Your task to perform on an android device: change the clock display to analog Image 0: 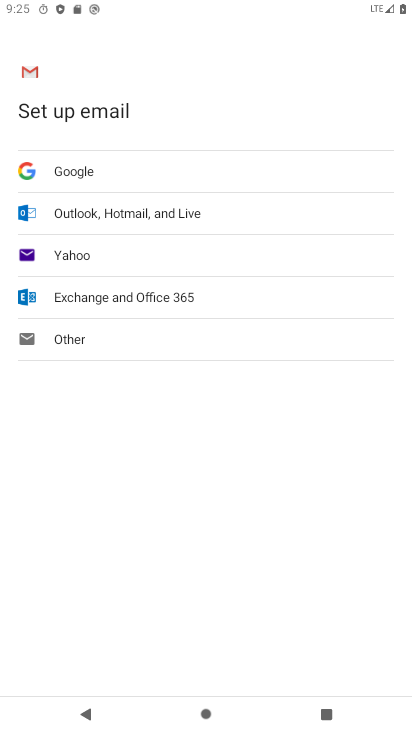
Step 0: press home button
Your task to perform on an android device: change the clock display to analog Image 1: 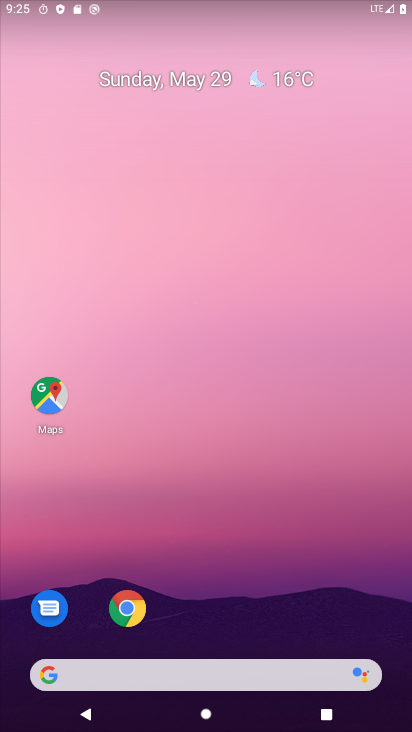
Step 1: drag from (194, 616) to (248, 5)
Your task to perform on an android device: change the clock display to analog Image 2: 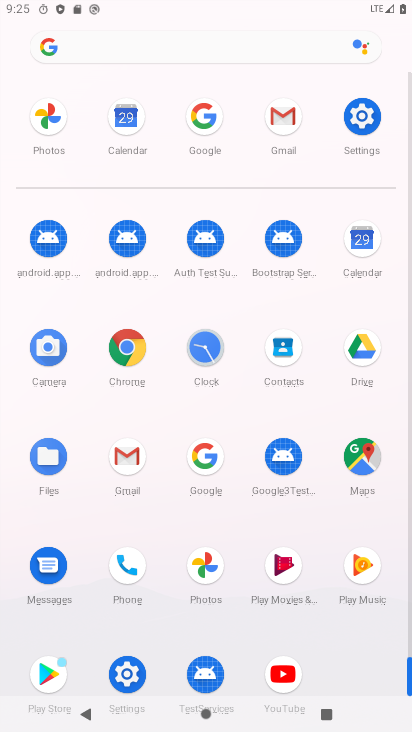
Step 2: click (213, 365)
Your task to perform on an android device: change the clock display to analog Image 3: 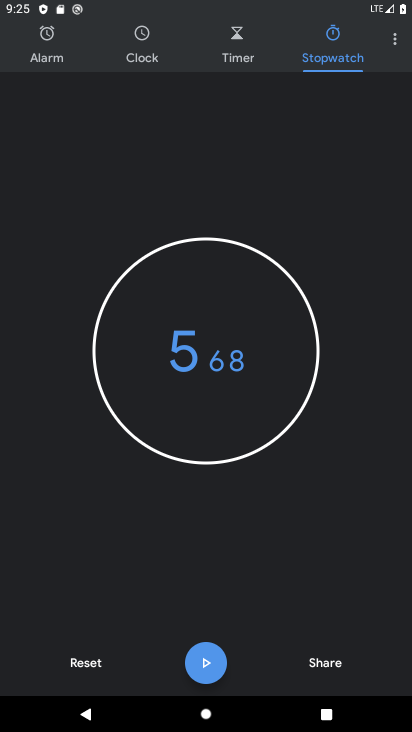
Step 3: click (397, 42)
Your task to perform on an android device: change the clock display to analog Image 4: 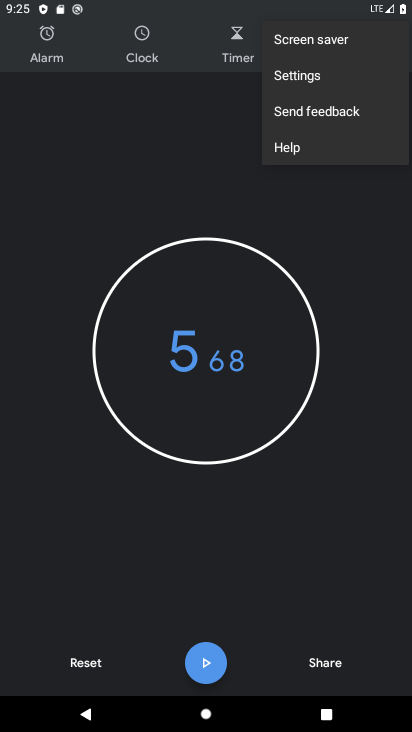
Step 4: click (345, 86)
Your task to perform on an android device: change the clock display to analog Image 5: 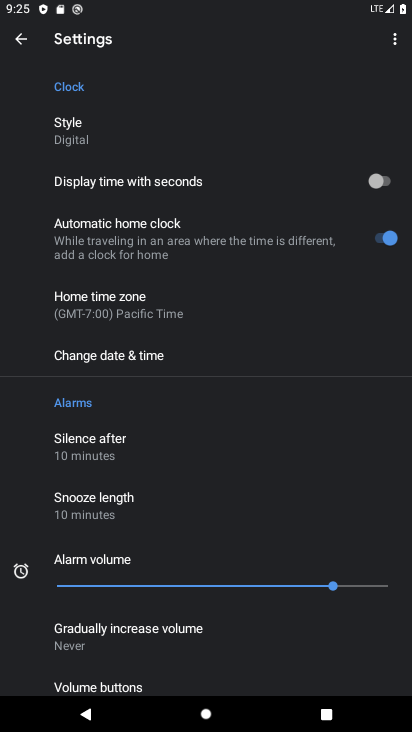
Step 5: click (76, 135)
Your task to perform on an android device: change the clock display to analog Image 6: 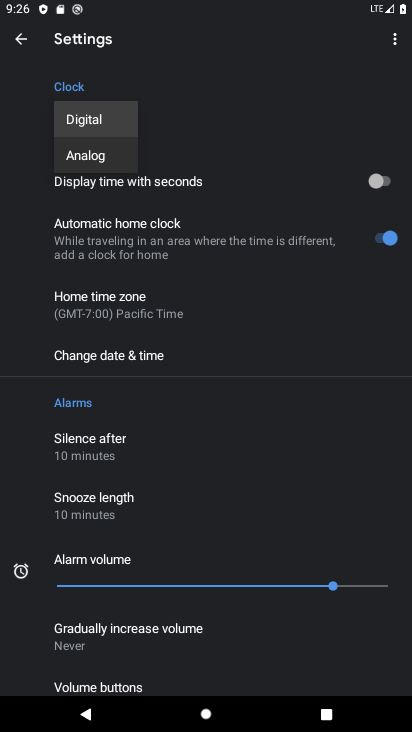
Step 6: click (97, 162)
Your task to perform on an android device: change the clock display to analog Image 7: 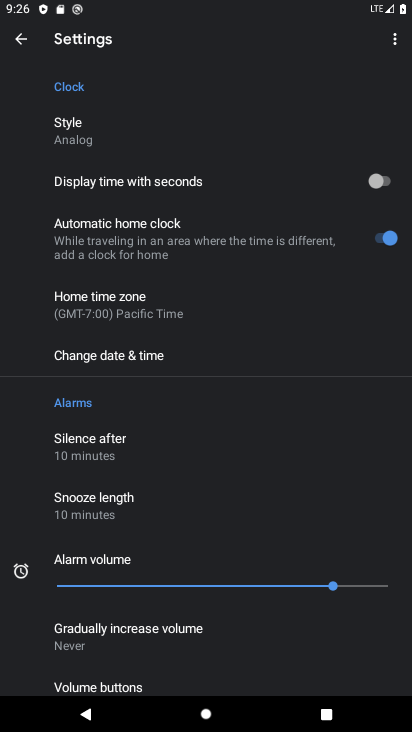
Step 7: task complete